Your task to perform on an android device: Open display settings Image 0: 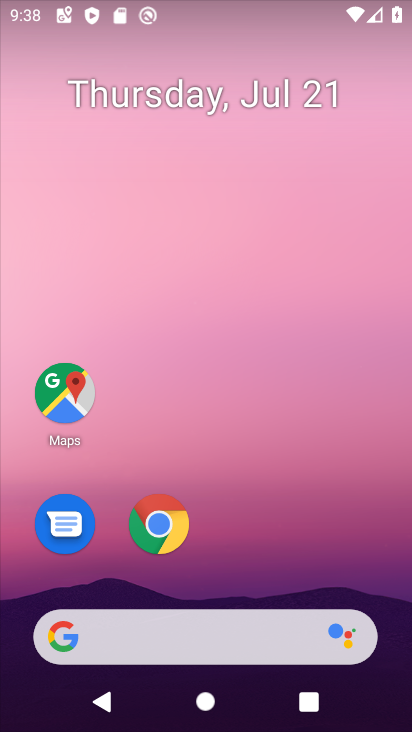
Step 0: drag from (235, 465) to (300, 76)
Your task to perform on an android device: Open display settings Image 1: 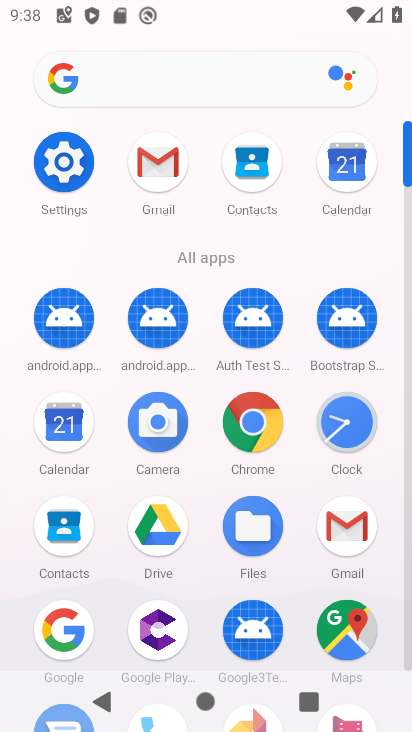
Step 1: click (70, 168)
Your task to perform on an android device: Open display settings Image 2: 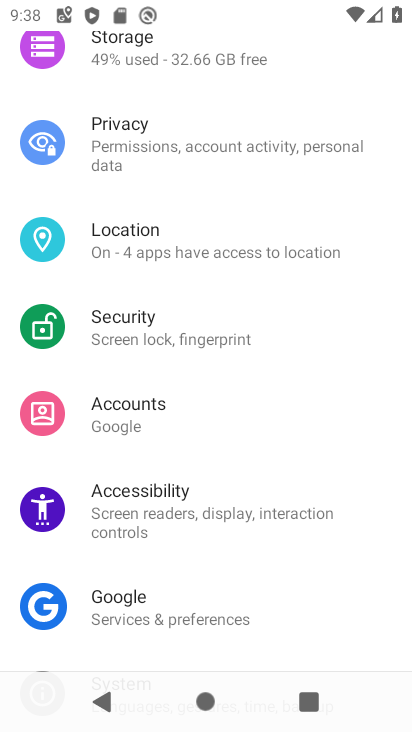
Step 2: drag from (218, 102) to (205, 504)
Your task to perform on an android device: Open display settings Image 3: 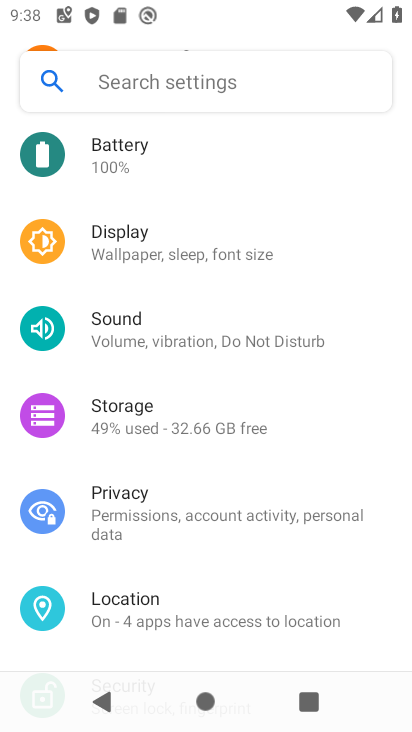
Step 3: click (140, 246)
Your task to perform on an android device: Open display settings Image 4: 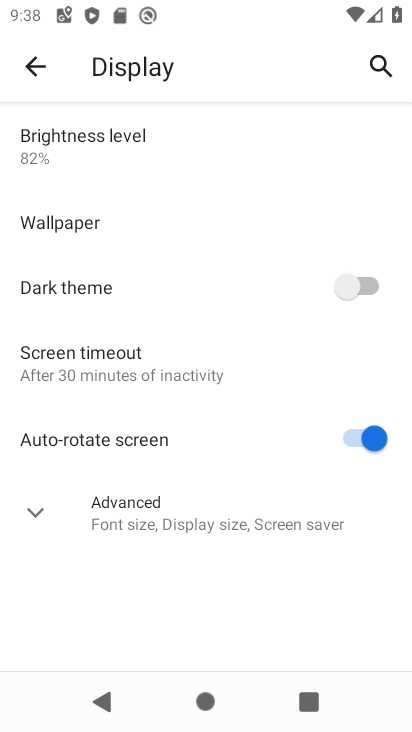
Step 4: task complete